Your task to perform on an android device: Go to Reddit.com Image 0: 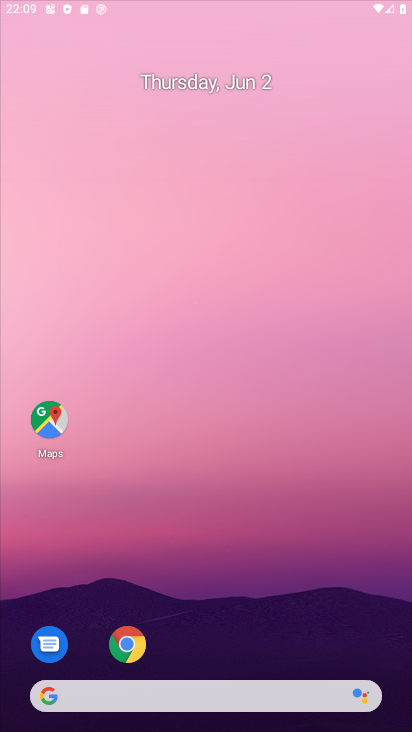
Step 0: press home button
Your task to perform on an android device: Go to Reddit.com Image 1: 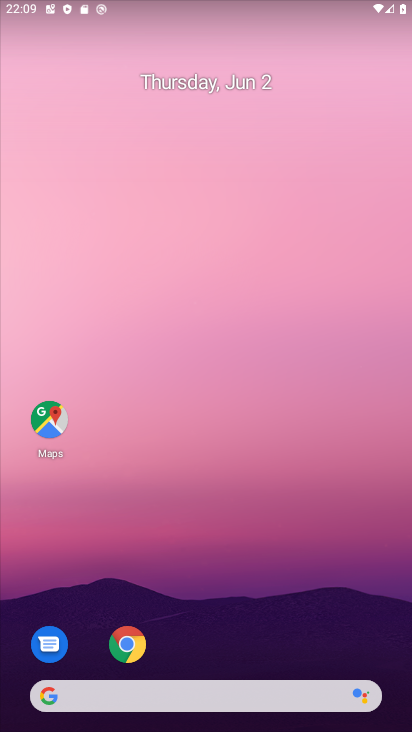
Step 1: click (49, 423)
Your task to perform on an android device: Go to Reddit.com Image 2: 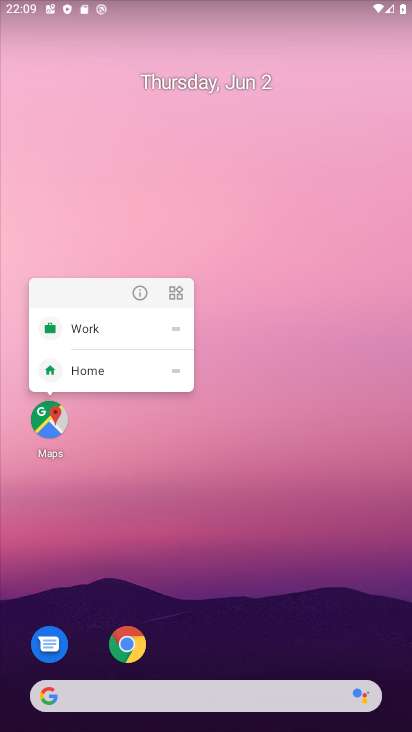
Step 2: click (49, 435)
Your task to perform on an android device: Go to Reddit.com Image 3: 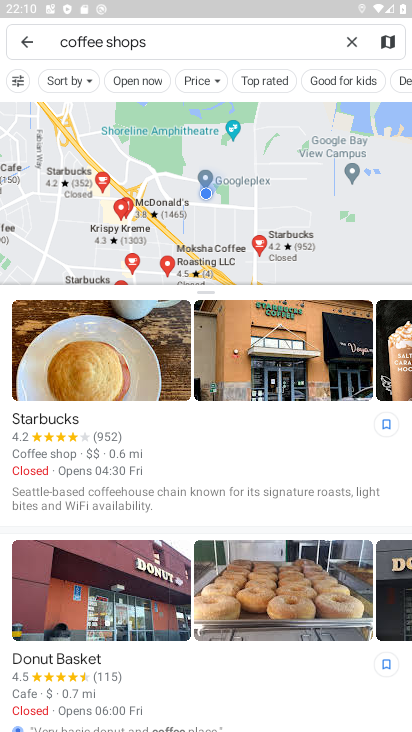
Step 3: press home button
Your task to perform on an android device: Go to Reddit.com Image 4: 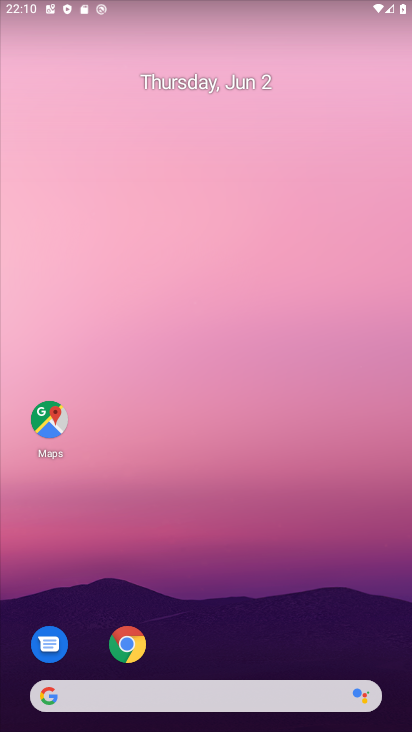
Step 4: click (125, 640)
Your task to perform on an android device: Go to Reddit.com Image 5: 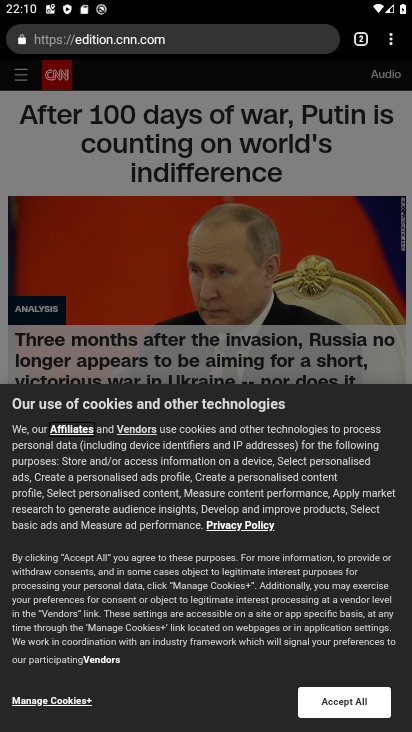
Step 5: click (148, 51)
Your task to perform on an android device: Go to Reddit.com Image 6: 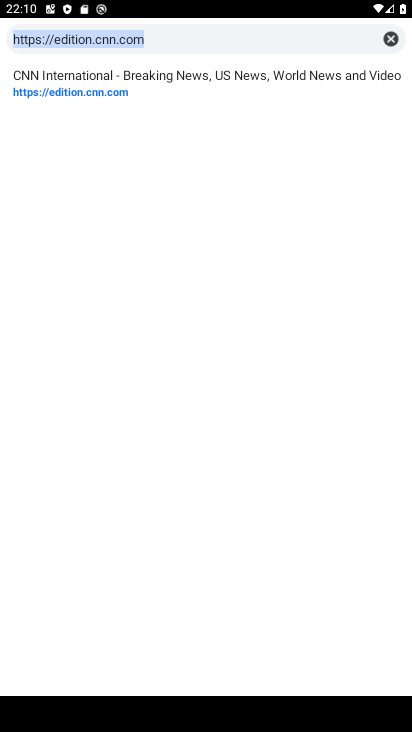
Step 6: type "www.reddit.com"
Your task to perform on an android device: Go to Reddit.com Image 7: 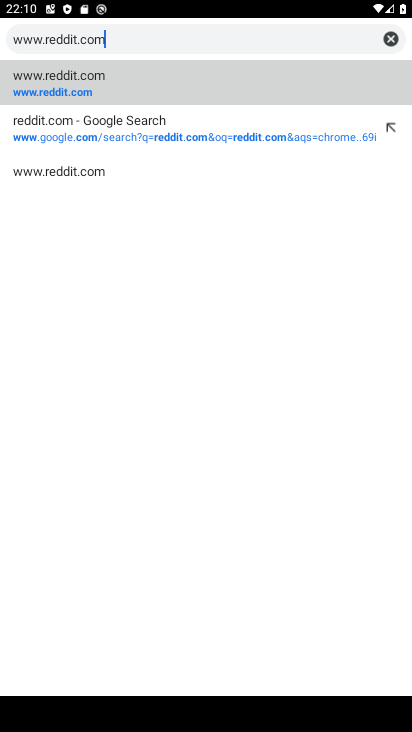
Step 7: click (68, 88)
Your task to perform on an android device: Go to Reddit.com Image 8: 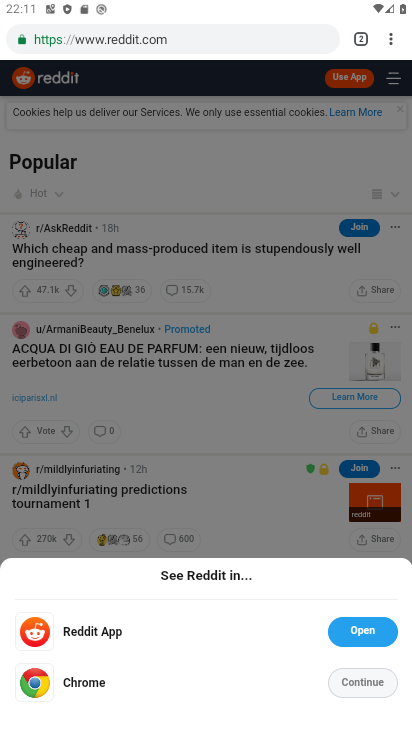
Step 8: task complete